Your task to perform on an android device: Open maps Image 0: 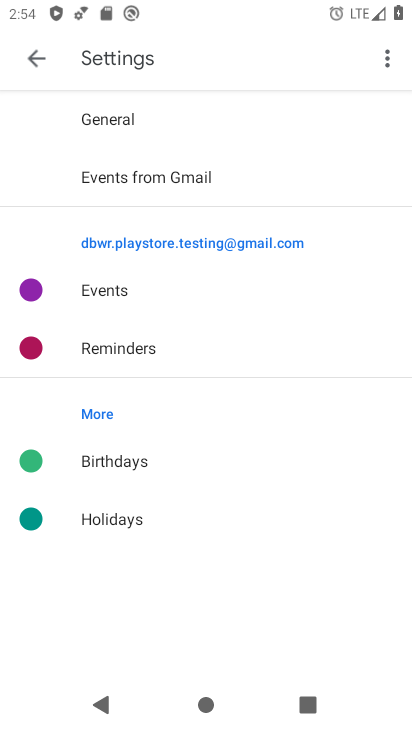
Step 0: drag from (226, 587) to (271, 175)
Your task to perform on an android device: Open maps Image 1: 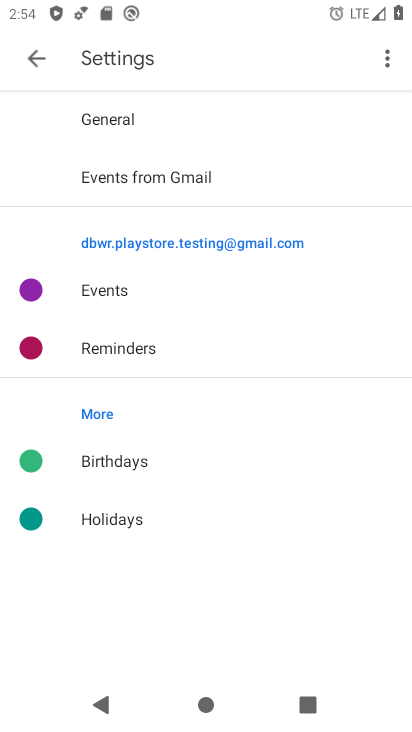
Step 1: press home button
Your task to perform on an android device: Open maps Image 2: 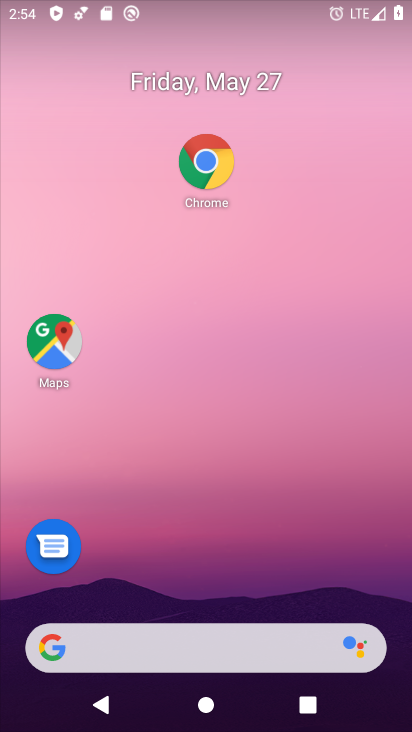
Step 2: click (47, 338)
Your task to perform on an android device: Open maps Image 3: 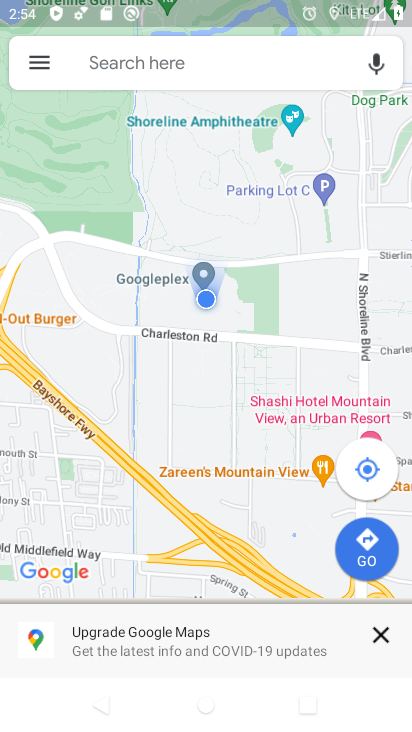
Step 3: task complete